Your task to perform on an android device: What's the weather going to be tomorrow? Image 0: 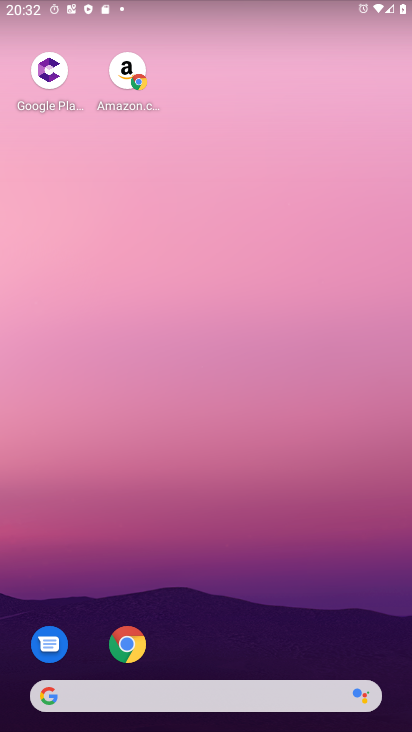
Step 0: drag from (250, 704) to (261, 155)
Your task to perform on an android device: What's the weather going to be tomorrow? Image 1: 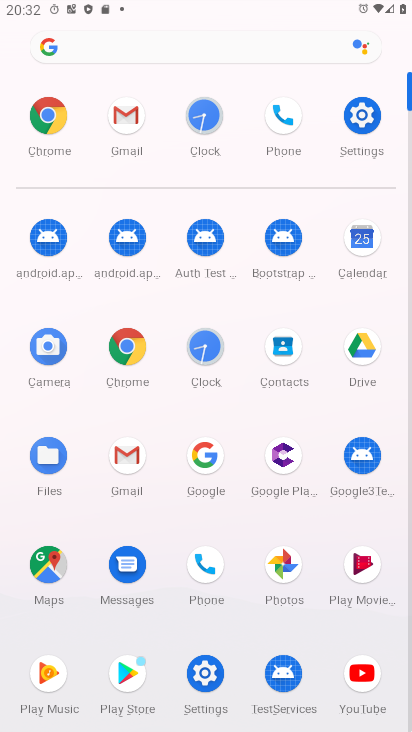
Step 1: click (137, 38)
Your task to perform on an android device: What's the weather going to be tomorrow? Image 2: 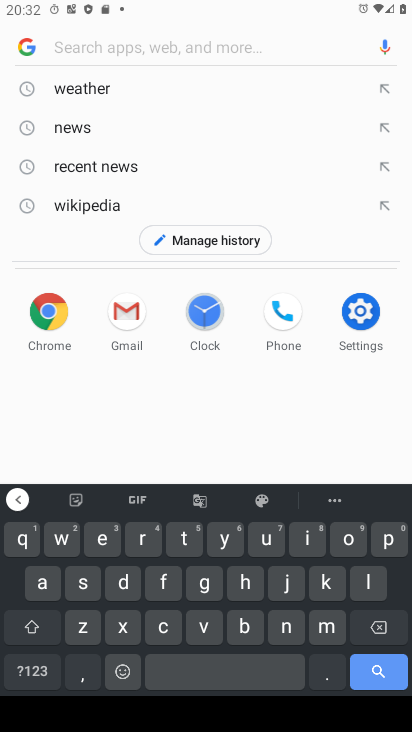
Step 2: click (102, 92)
Your task to perform on an android device: What's the weather going to be tomorrow? Image 3: 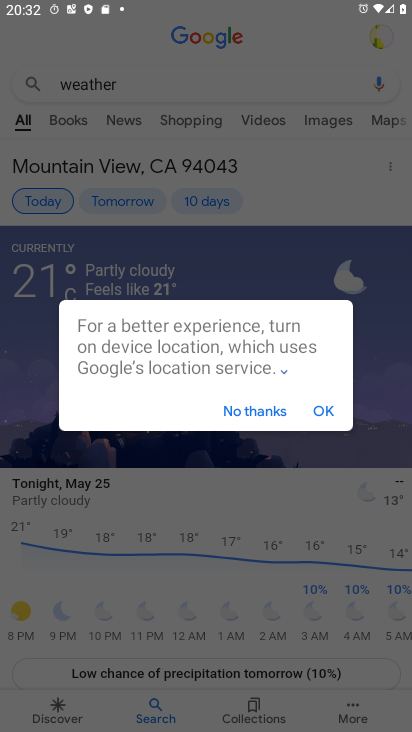
Step 3: click (114, 202)
Your task to perform on an android device: What's the weather going to be tomorrow? Image 4: 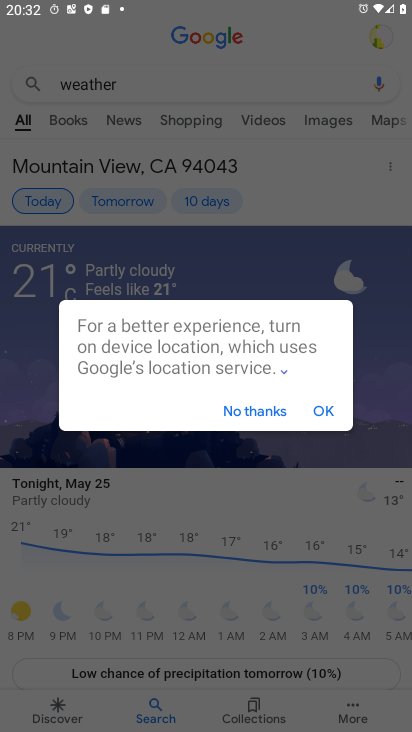
Step 4: click (248, 420)
Your task to perform on an android device: What's the weather going to be tomorrow? Image 5: 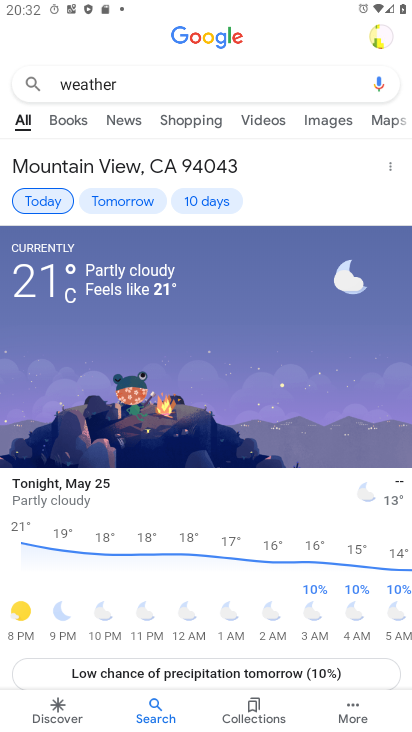
Step 5: click (117, 196)
Your task to perform on an android device: What's the weather going to be tomorrow? Image 6: 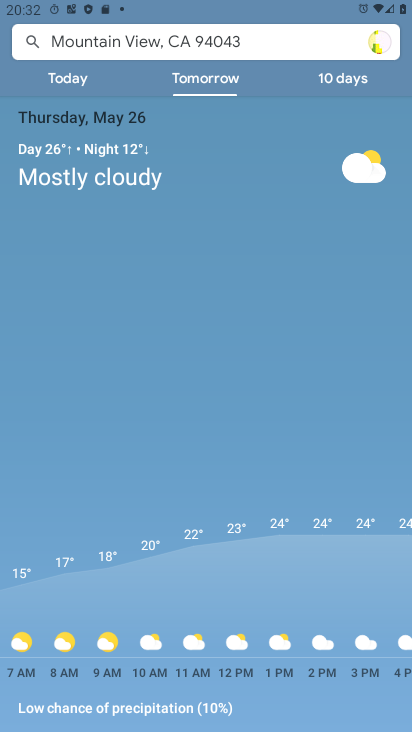
Step 6: task complete